Your task to perform on an android device: change keyboard looks Image 0: 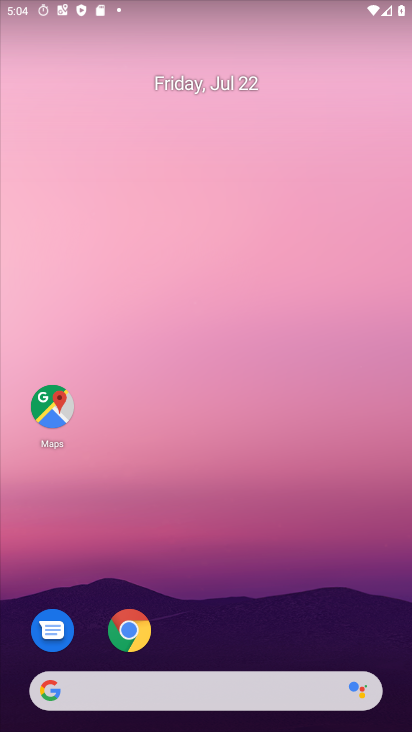
Step 0: drag from (229, 707) to (177, 32)
Your task to perform on an android device: change keyboard looks Image 1: 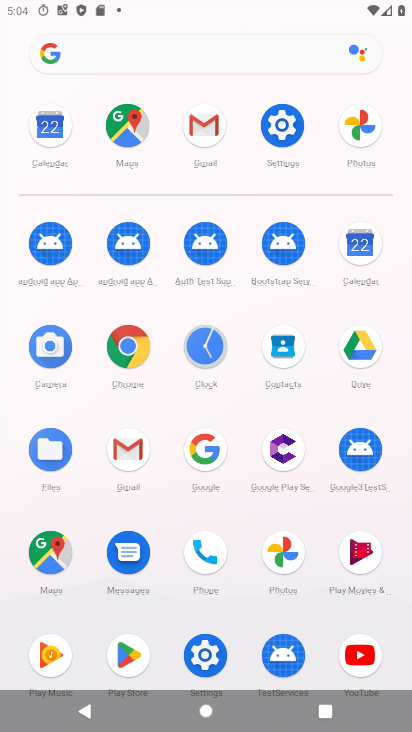
Step 1: click (279, 112)
Your task to perform on an android device: change keyboard looks Image 2: 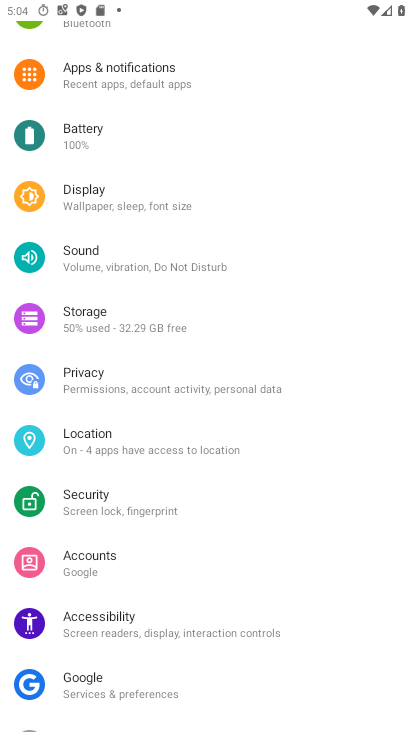
Step 2: click (114, 616)
Your task to perform on an android device: change keyboard looks Image 3: 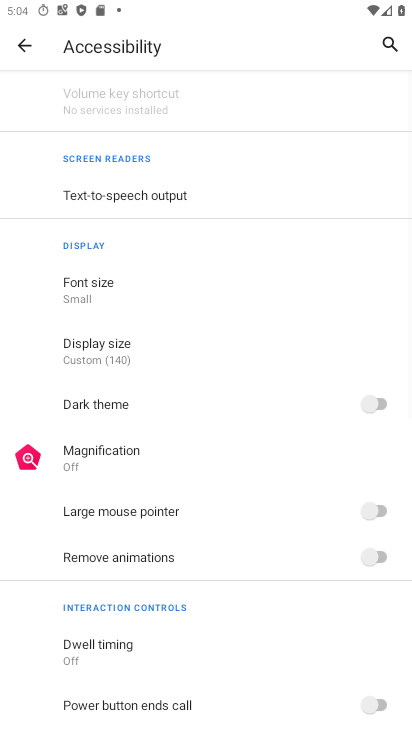
Step 3: press back button
Your task to perform on an android device: change keyboard looks Image 4: 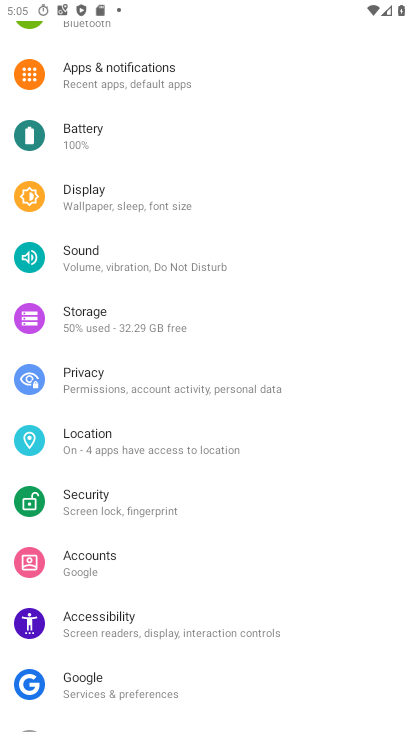
Step 4: drag from (147, 660) to (144, 344)
Your task to perform on an android device: change keyboard looks Image 5: 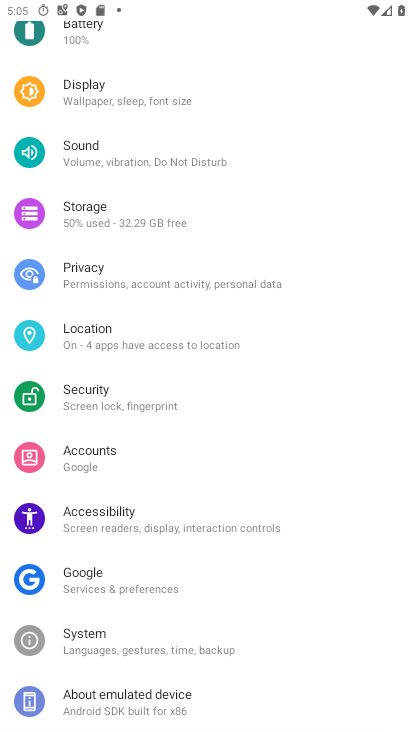
Step 5: click (147, 641)
Your task to perform on an android device: change keyboard looks Image 6: 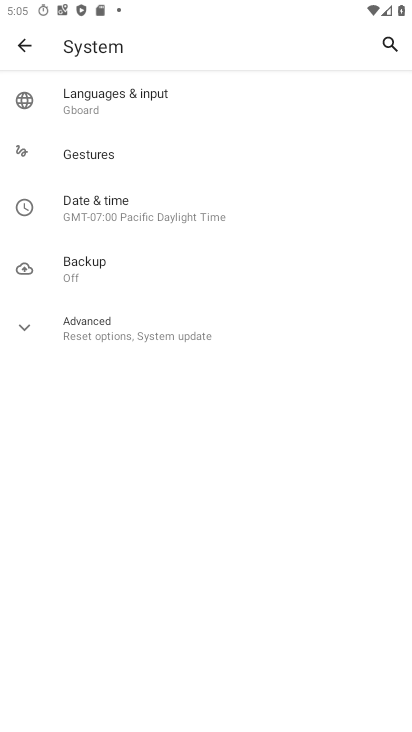
Step 6: click (165, 102)
Your task to perform on an android device: change keyboard looks Image 7: 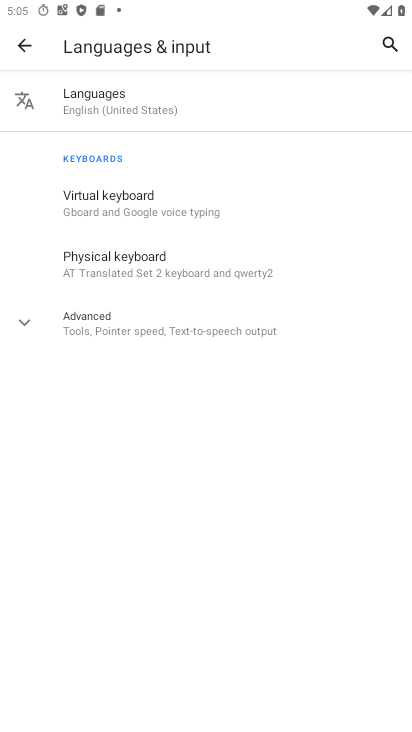
Step 7: click (127, 198)
Your task to perform on an android device: change keyboard looks Image 8: 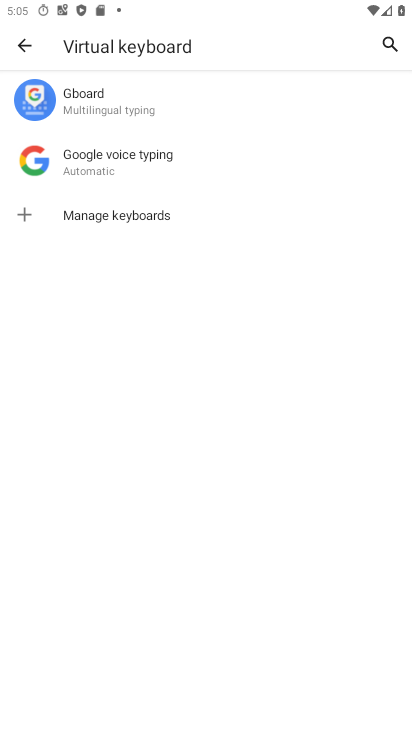
Step 8: click (129, 112)
Your task to perform on an android device: change keyboard looks Image 9: 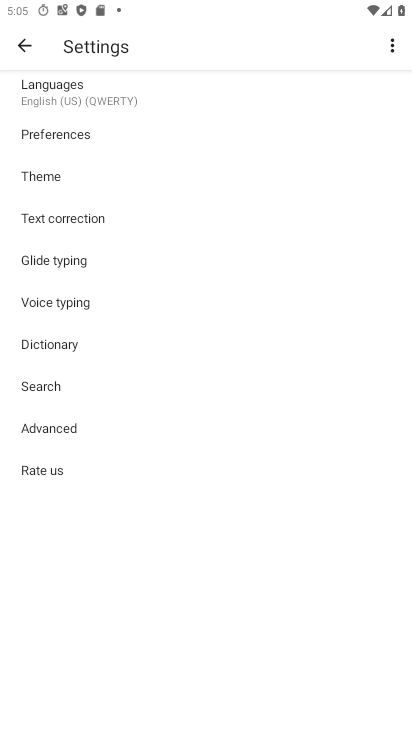
Step 9: click (40, 175)
Your task to perform on an android device: change keyboard looks Image 10: 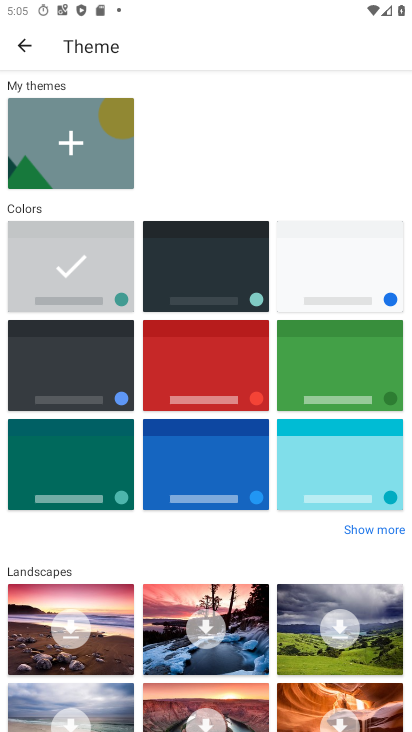
Step 10: click (222, 374)
Your task to perform on an android device: change keyboard looks Image 11: 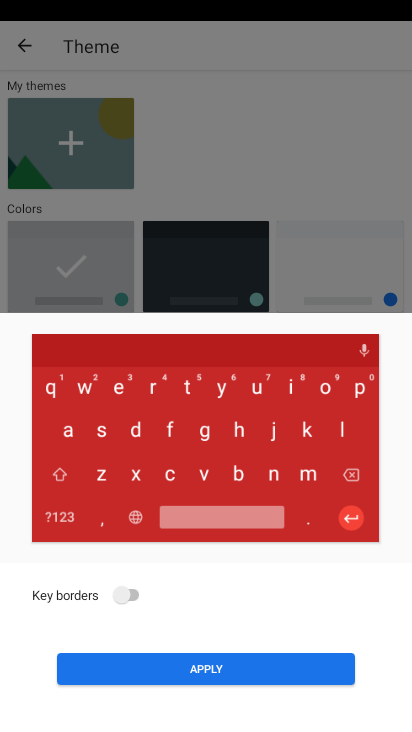
Step 11: click (225, 666)
Your task to perform on an android device: change keyboard looks Image 12: 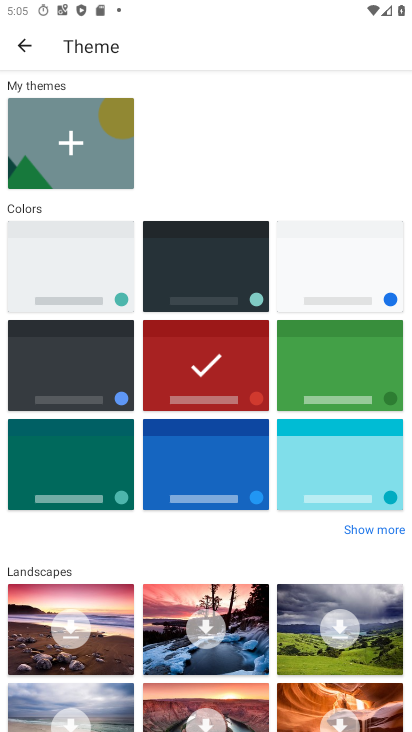
Step 12: task complete